Your task to perform on an android device: check battery use Image 0: 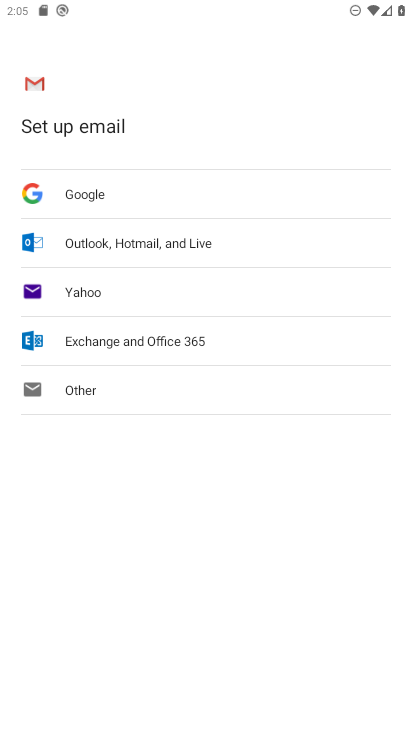
Step 0: press home button
Your task to perform on an android device: check battery use Image 1: 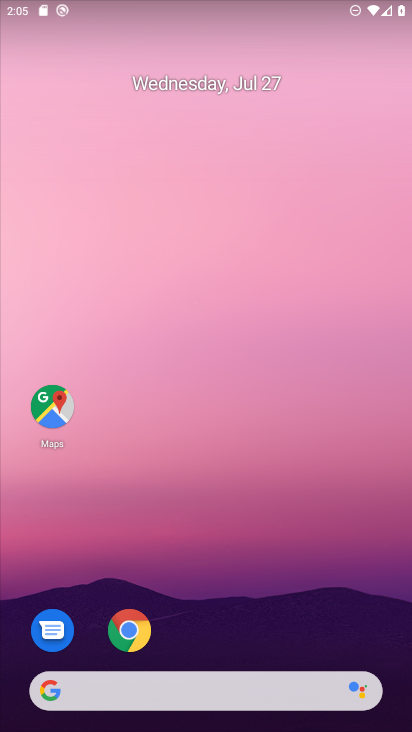
Step 1: drag from (380, 644) to (358, 171)
Your task to perform on an android device: check battery use Image 2: 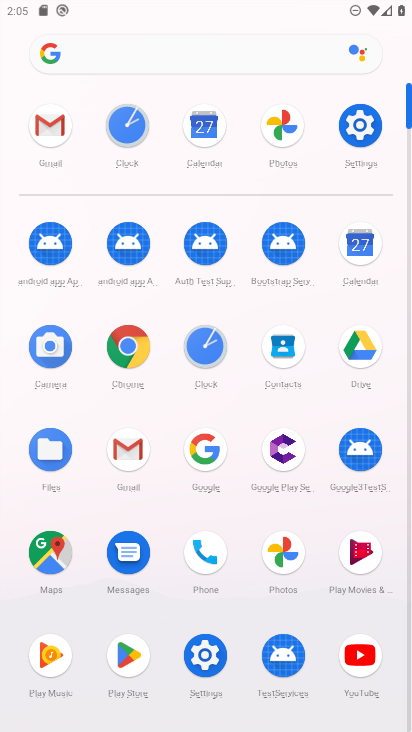
Step 2: click (206, 654)
Your task to perform on an android device: check battery use Image 3: 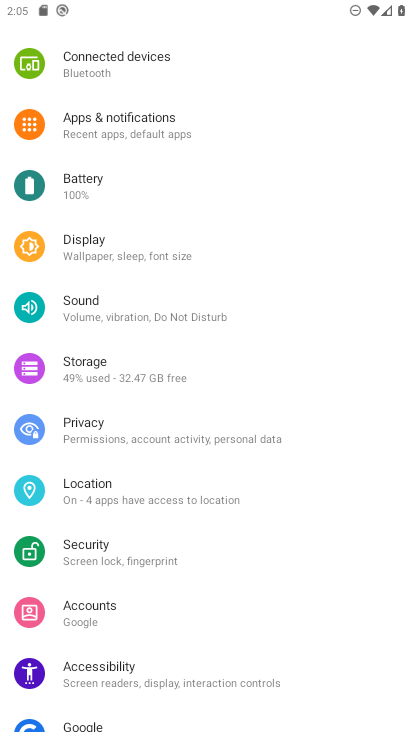
Step 3: click (79, 176)
Your task to perform on an android device: check battery use Image 4: 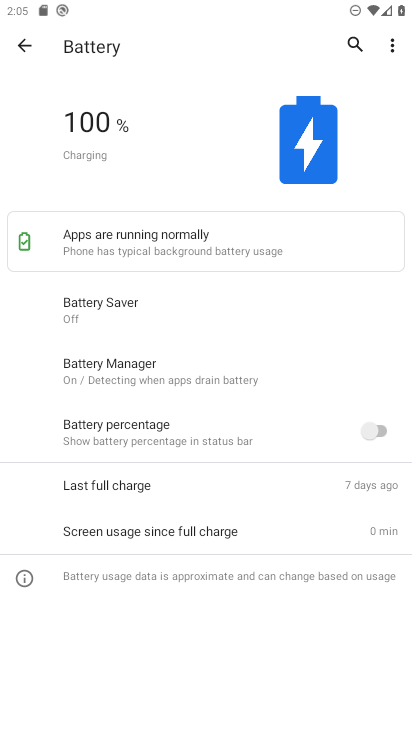
Step 4: click (392, 49)
Your task to perform on an android device: check battery use Image 5: 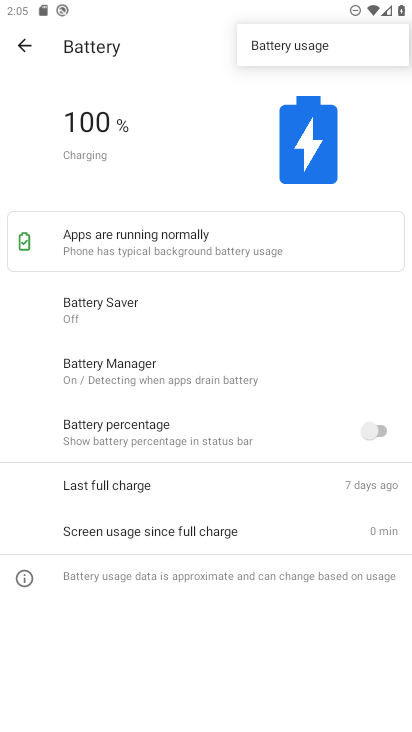
Step 5: click (283, 42)
Your task to perform on an android device: check battery use Image 6: 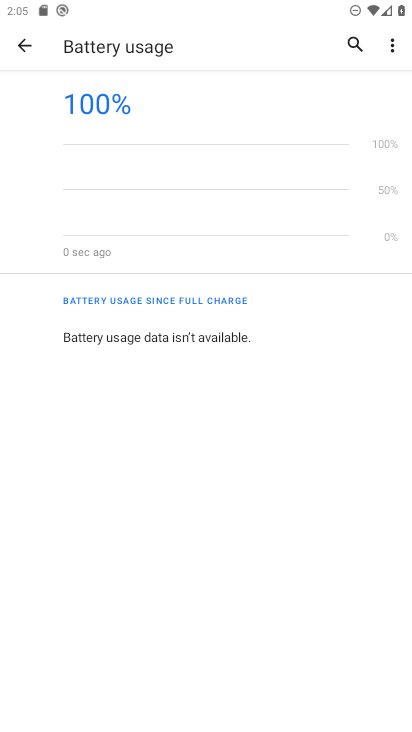
Step 6: task complete